Your task to perform on an android device: turn smart compose on in the gmail app Image 0: 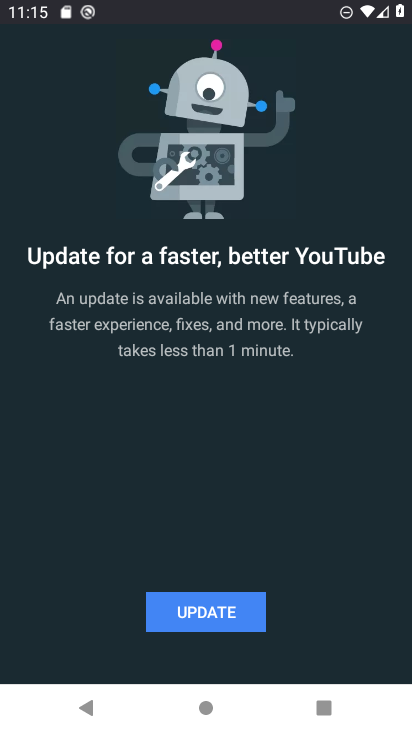
Step 0: press home button
Your task to perform on an android device: turn smart compose on in the gmail app Image 1: 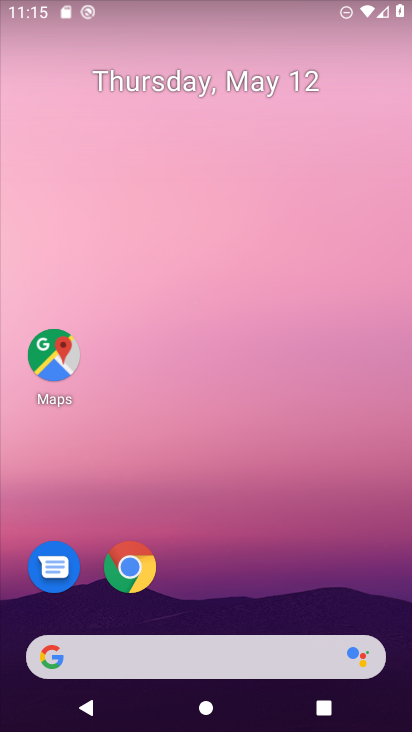
Step 1: drag from (202, 606) to (260, 78)
Your task to perform on an android device: turn smart compose on in the gmail app Image 2: 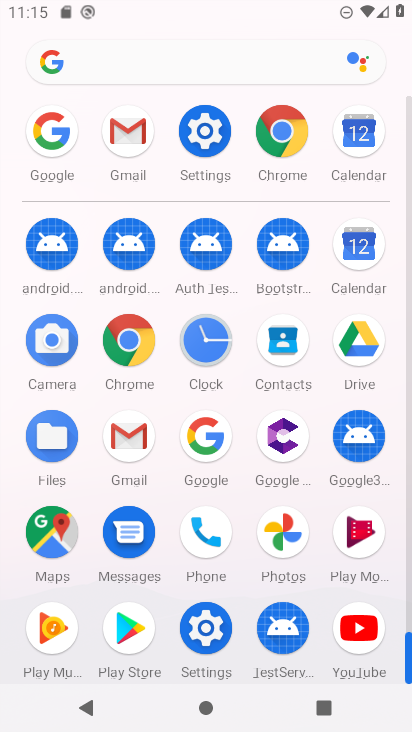
Step 2: click (115, 443)
Your task to perform on an android device: turn smart compose on in the gmail app Image 3: 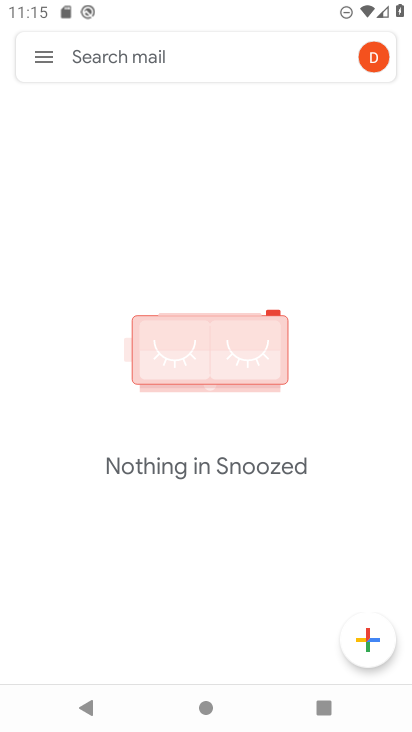
Step 3: click (48, 64)
Your task to perform on an android device: turn smart compose on in the gmail app Image 4: 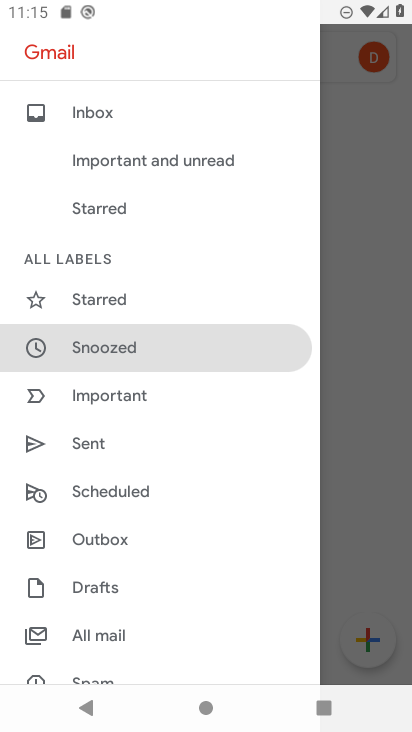
Step 4: drag from (191, 573) to (224, 202)
Your task to perform on an android device: turn smart compose on in the gmail app Image 5: 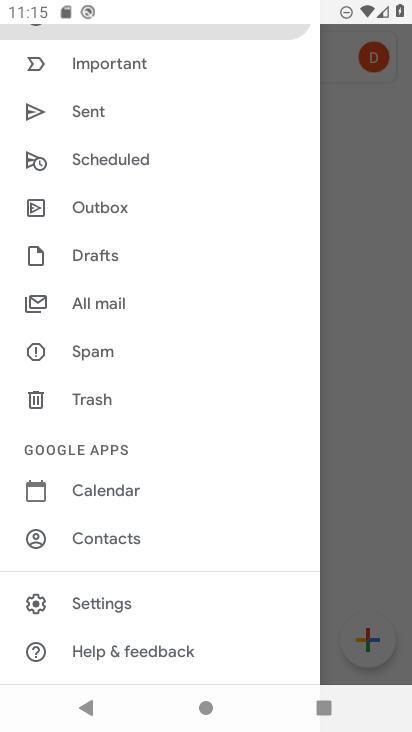
Step 5: click (116, 607)
Your task to perform on an android device: turn smart compose on in the gmail app Image 6: 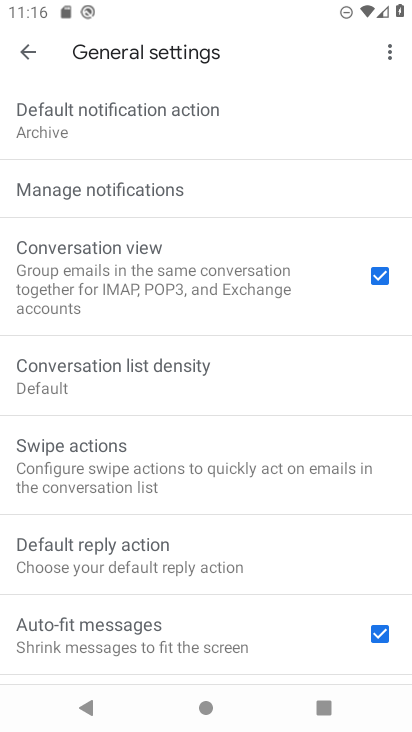
Step 6: drag from (156, 474) to (193, 168)
Your task to perform on an android device: turn smart compose on in the gmail app Image 7: 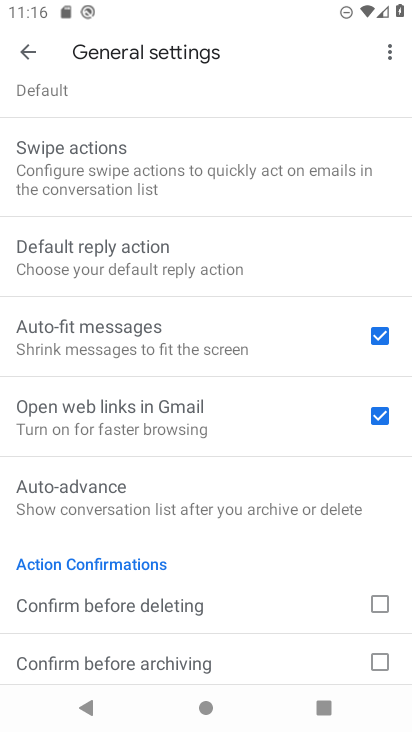
Step 7: click (27, 45)
Your task to perform on an android device: turn smart compose on in the gmail app Image 8: 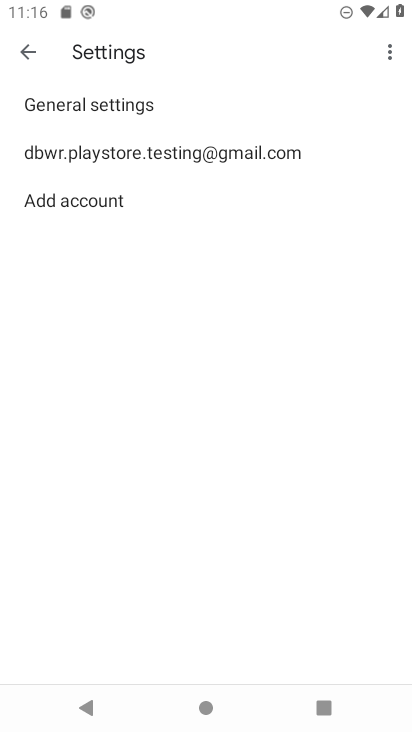
Step 8: click (158, 158)
Your task to perform on an android device: turn smart compose on in the gmail app Image 9: 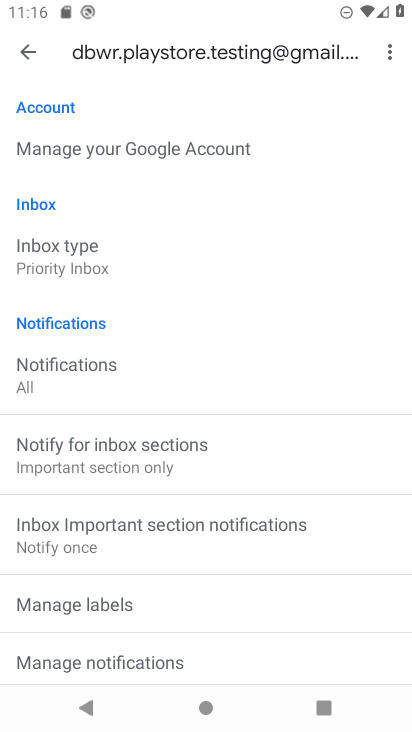
Step 9: task complete